Your task to perform on an android device: turn on priority inbox in the gmail app Image 0: 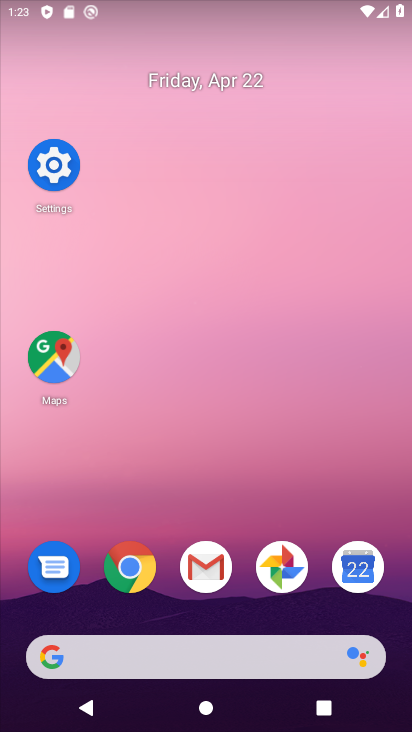
Step 0: click (200, 565)
Your task to perform on an android device: turn on priority inbox in the gmail app Image 1: 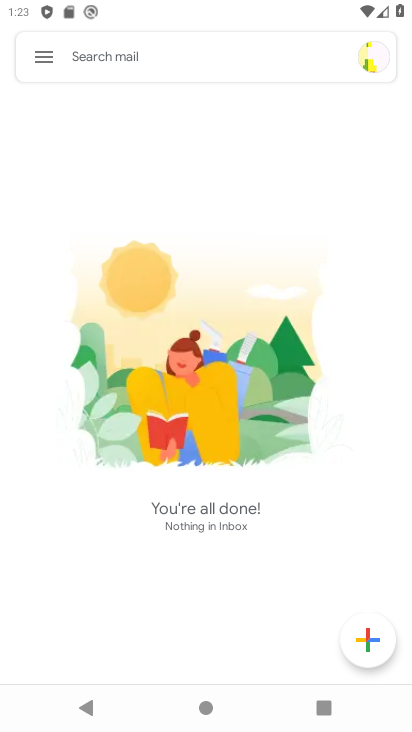
Step 1: click (36, 64)
Your task to perform on an android device: turn on priority inbox in the gmail app Image 2: 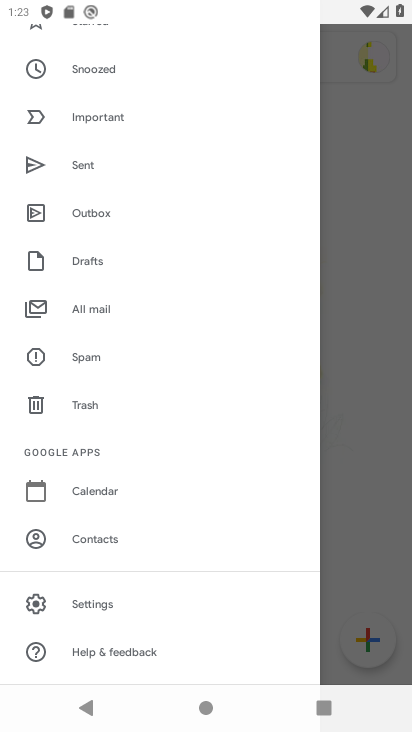
Step 2: click (94, 598)
Your task to perform on an android device: turn on priority inbox in the gmail app Image 3: 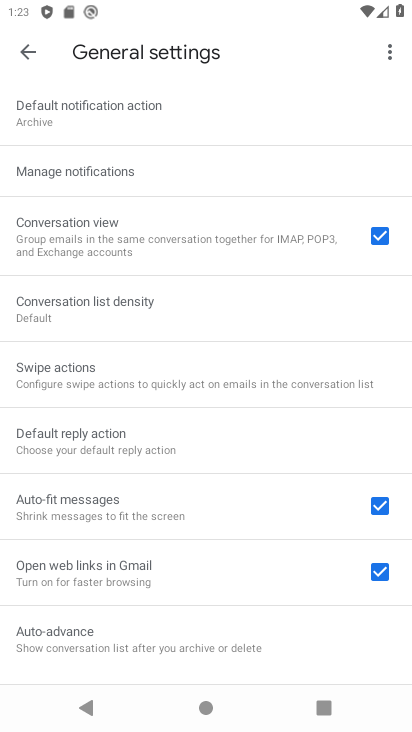
Step 3: click (30, 51)
Your task to perform on an android device: turn on priority inbox in the gmail app Image 4: 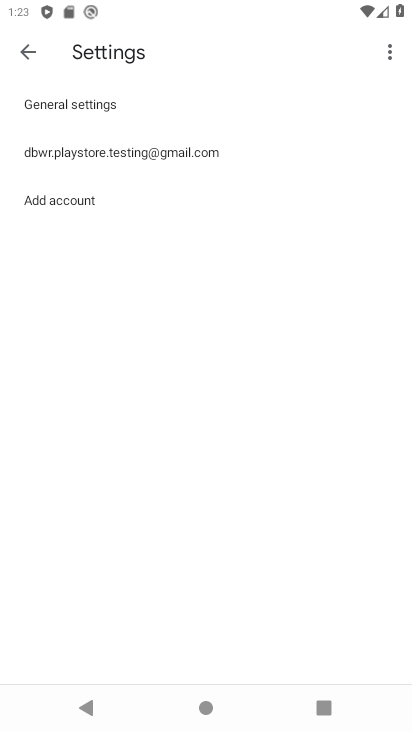
Step 4: click (96, 147)
Your task to perform on an android device: turn on priority inbox in the gmail app Image 5: 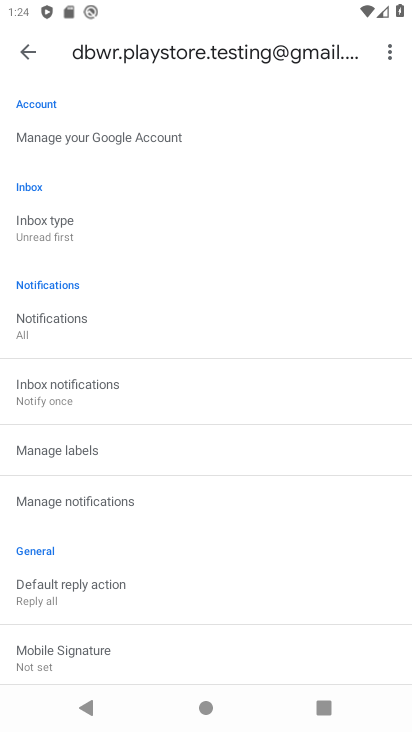
Step 5: click (53, 226)
Your task to perform on an android device: turn on priority inbox in the gmail app Image 6: 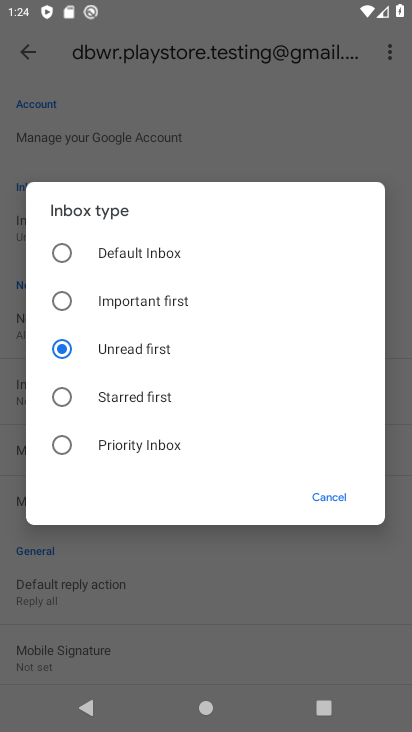
Step 6: click (64, 442)
Your task to perform on an android device: turn on priority inbox in the gmail app Image 7: 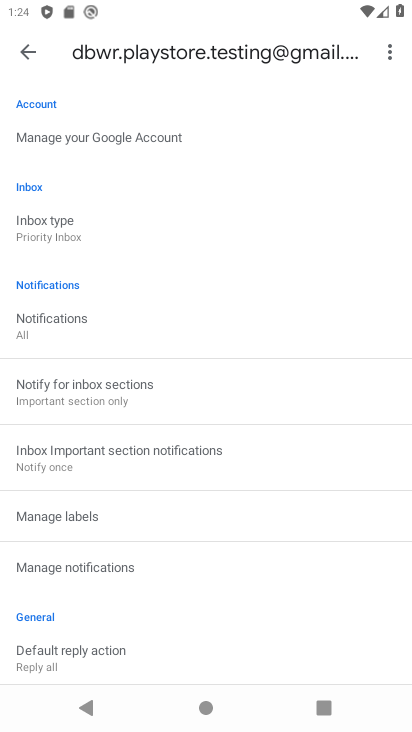
Step 7: task complete